Your task to perform on an android device: add a label to a message in the gmail app Image 0: 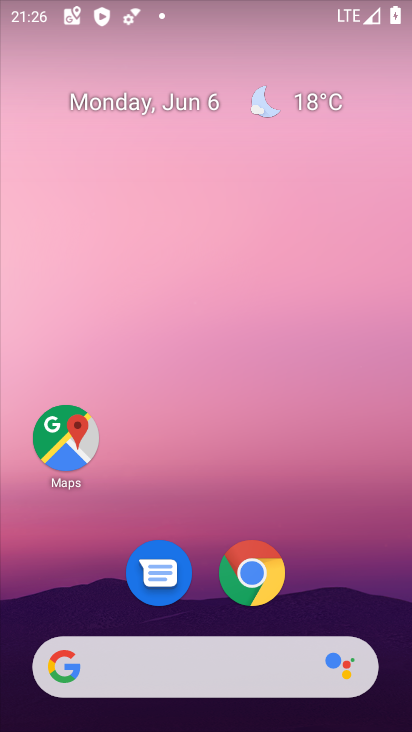
Step 0: drag from (375, 609) to (267, 60)
Your task to perform on an android device: add a label to a message in the gmail app Image 1: 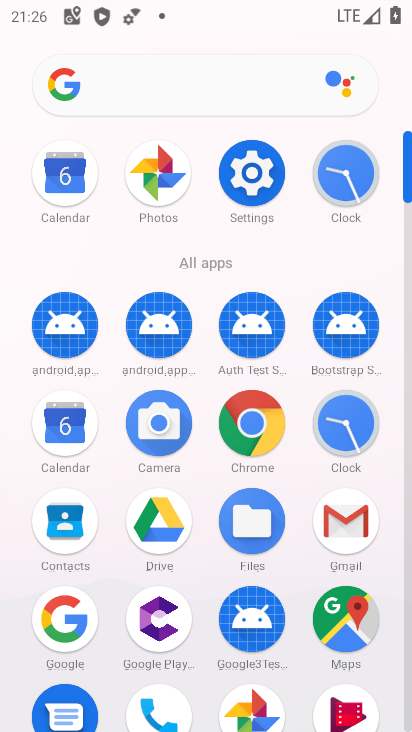
Step 1: click (349, 504)
Your task to perform on an android device: add a label to a message in the gmail app Image 2: 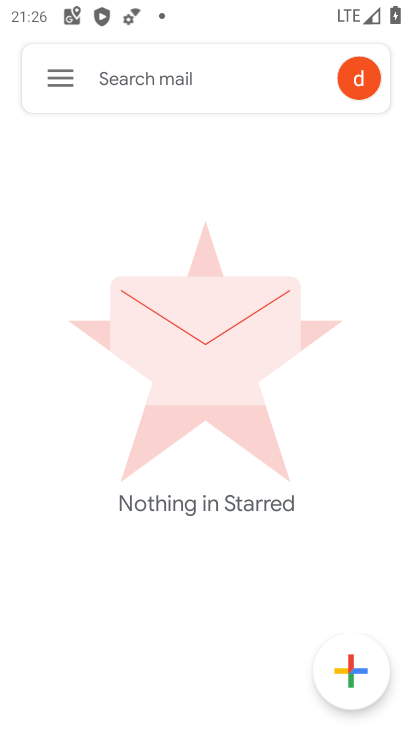
Step 2: click (62, 71)
Your task to perform on an android device: add a label to a message in the gmail app Image 3: 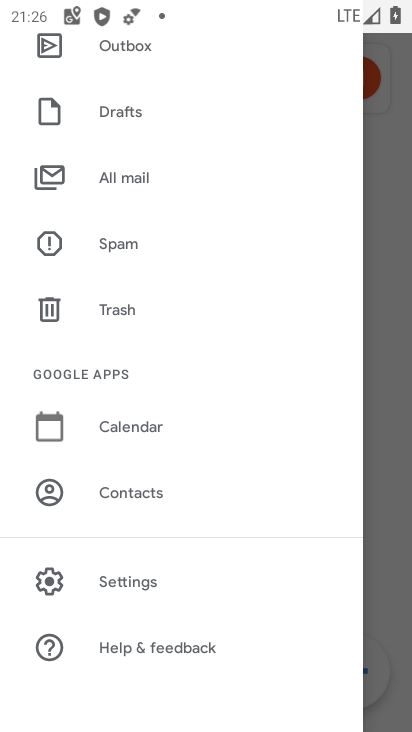
Step 3: click (123, 182)
Your task to perform on an android device: add a label to a message in the gmail app Image 4: 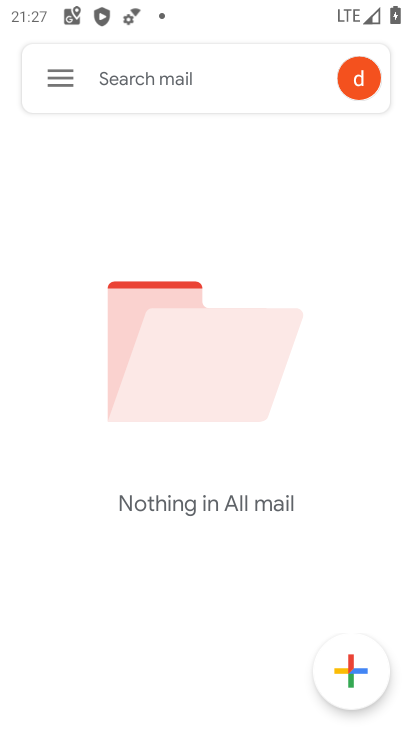
Step 4: task complete